Your task to perform on an android device: Open Chrome and go to the settings page Image 0: 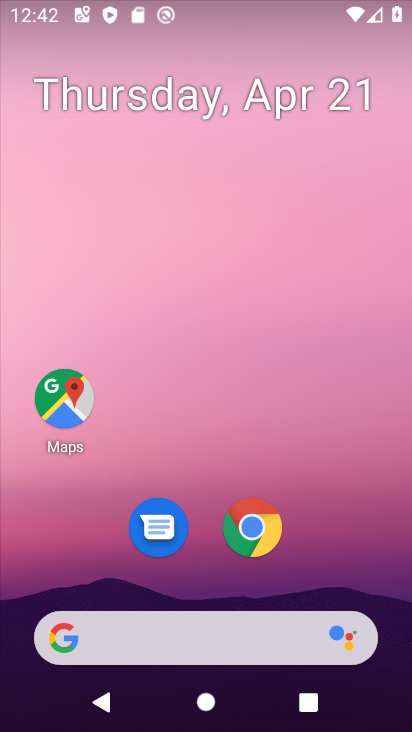
Step 0: drag from (345, 544) to (349, 71)
Your task to perform on an android device: Open Chrome and go to the settings page Image 1: 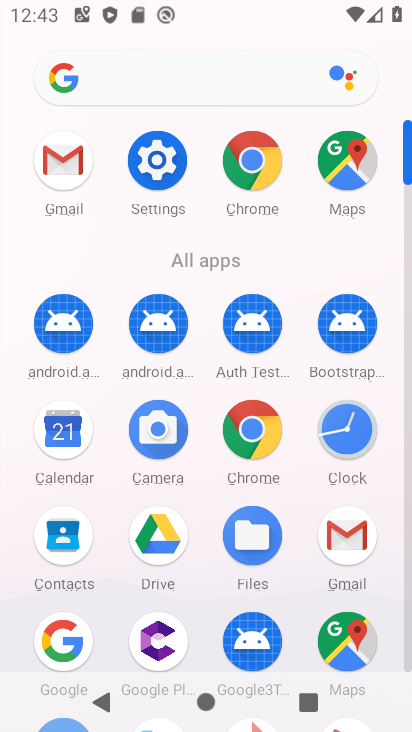
Step 1: click (265, 441)
Your task to perform on an android device: Open Chrome and go to the settings page Image 2: 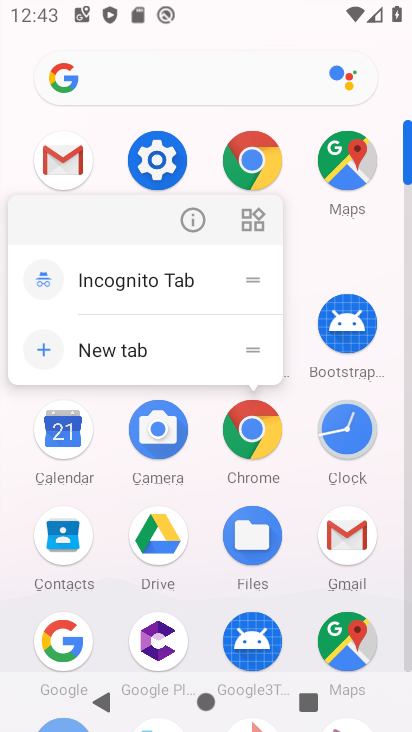
Step 2: click (272, 426)
Your task to perform on an android device: Open Chrome and go to the settings page Image 3: 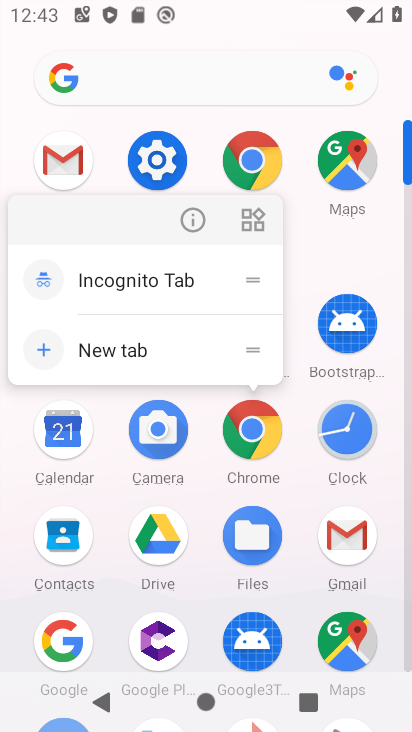
Step 3: click (245, 448)
Your task to perform on an android device: Open Chrome and go to the settings page Image 4: 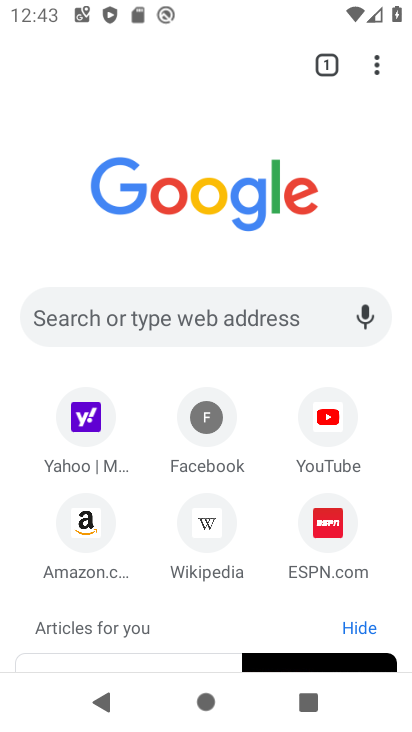
Step 4: click (376, 70)
Your task to perform on an android device: Open Chrome and go to the settings page Image 5: 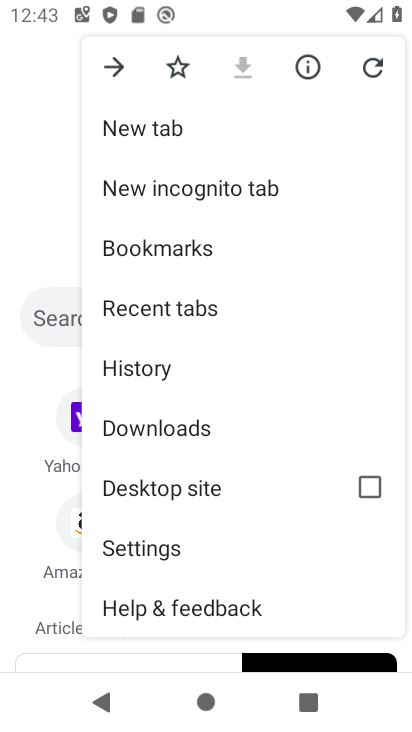
Step 5: drag from (297, 518) to (312, 242)
Your task to perform on an android device: Open Chrome and go to the settings page Image 6: 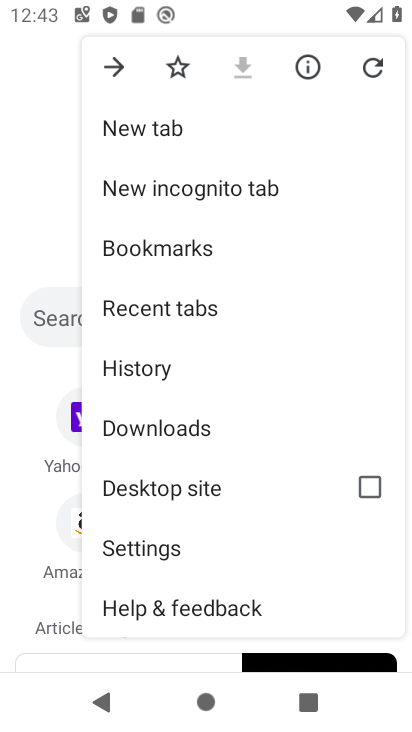
Step 6: click (177, 544)
Your task to perform on an android device: Open Chrome and go to the settings page Image 7: 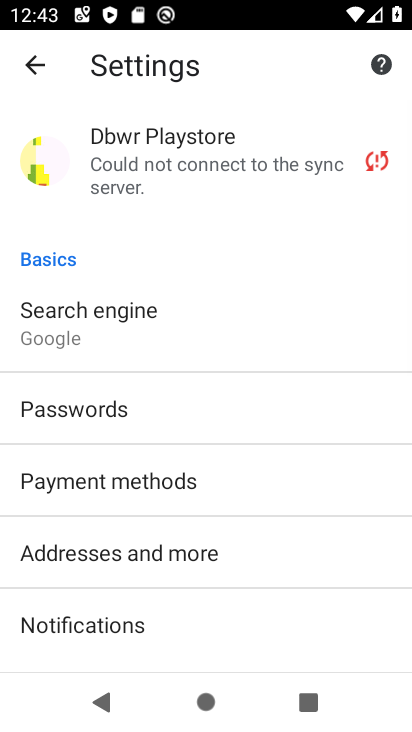
Step 7: task complete